Your task to perform on an android device: turn off priority inbox in the gmail app Image 0: 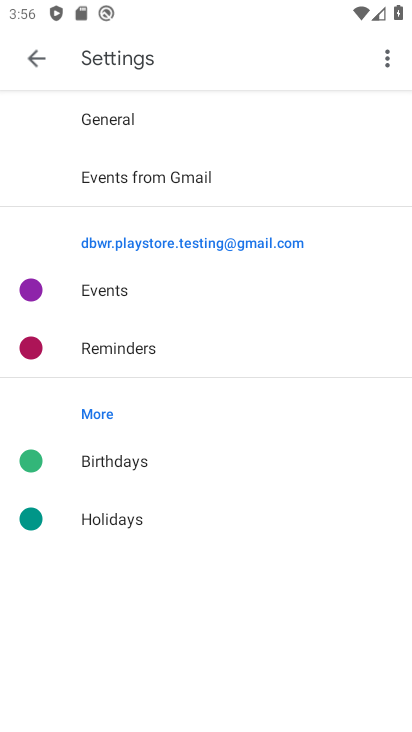
Step 0: press back button
Your task to perform on an android device: turn off priority inbox in the gmail app Image 1: 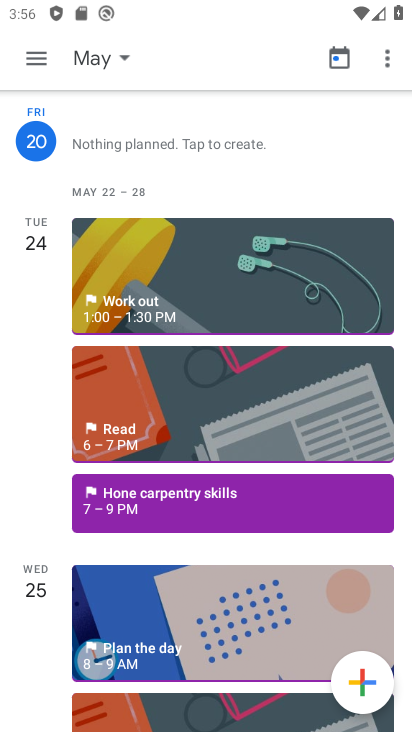
Step 1: press back button
Your task to perform on an android device: turn off priority inbox in the gmail app Image 2: 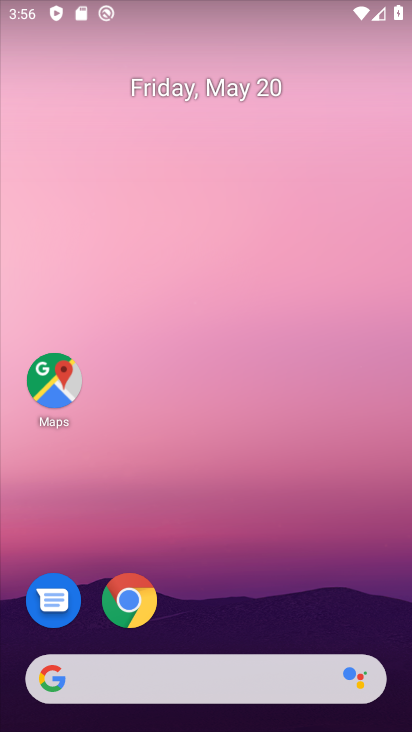
Step 2: drag from (284, 572) to (283, 65)
Your task to perform on an android device: turn off priority inbox in the gmail app Image 3: 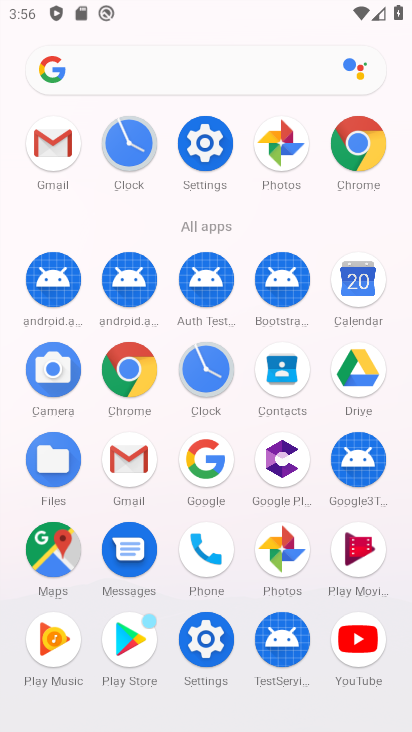
Step 3: click (62, 143)
Your task to perform on an android device: turn off priority inbox in the gmail app Image 4: 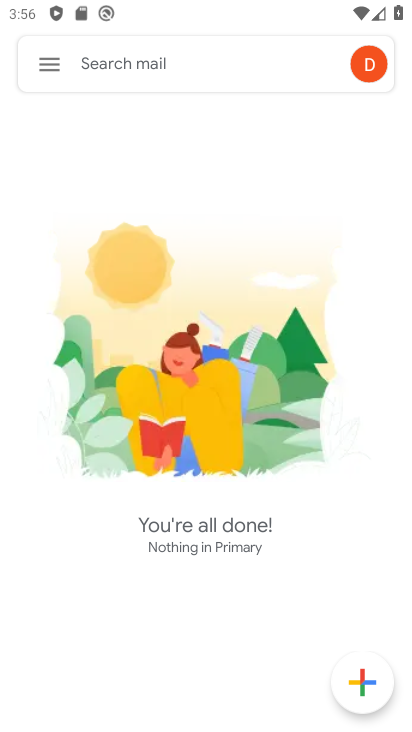
Step 4: click (40, 62)
Your task to perform on an android device: turn off priority inbox in the gmail app Image 5: 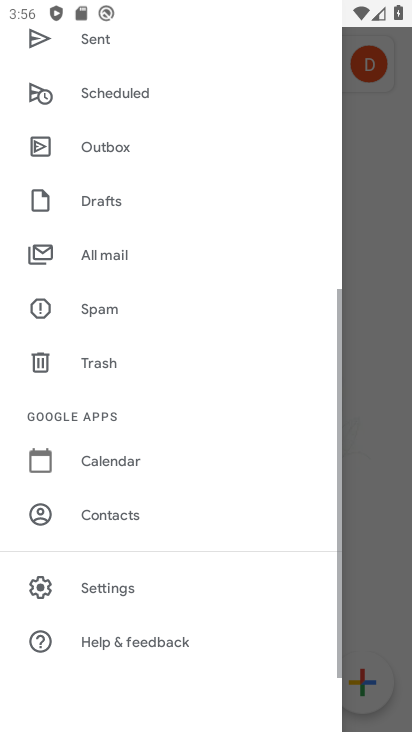
Step 5: click (120, 580)
Your task to perform on an android device: turn off priority inbox in the gmail app Image 6: 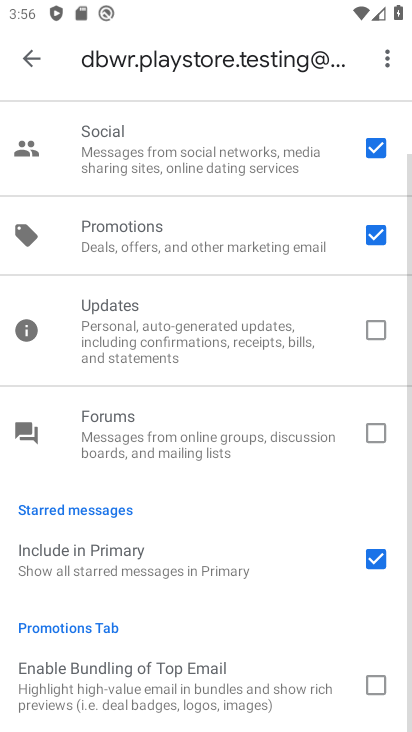
Step 6: drag from (202, 196) to (104, 715)
Your task to perform on an android device: turn off priority inbox in the gmail app Image 7: 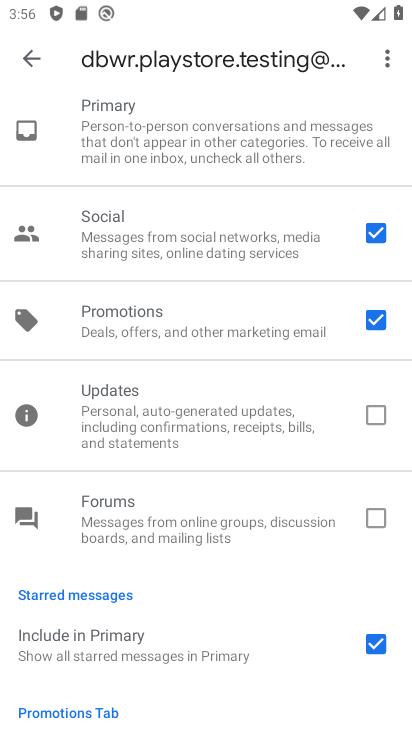
Step 7: drag from (151, 646) to (184, 730)
Your task to perform on an android device: turn off priority inbox in the gmail app Image 8: 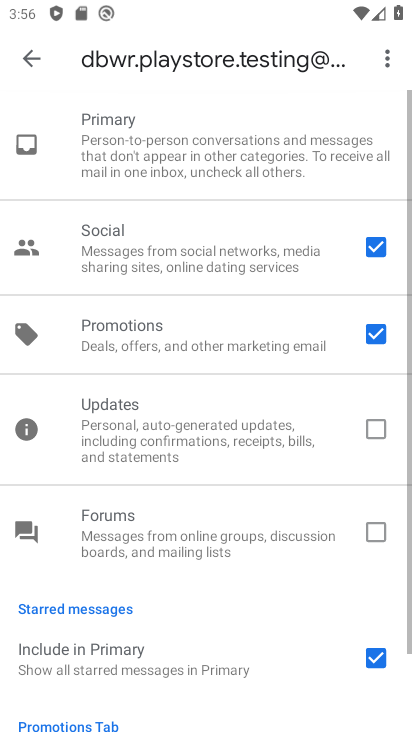
Step 8: click (20, 46)
Your task to perform on an android device: turn off priority inbox in the gmail app Image 9: 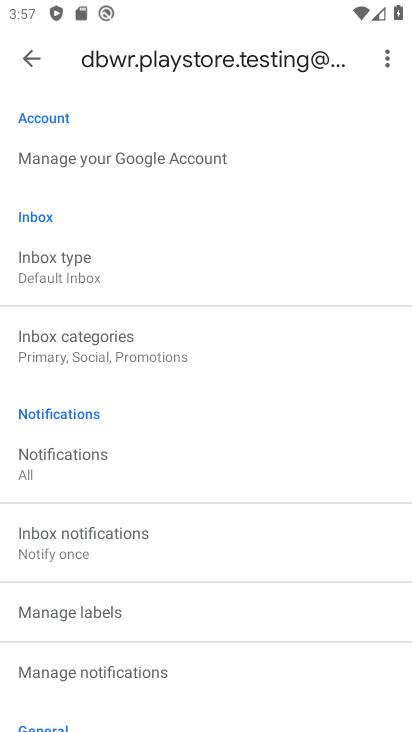
Step 9: click (58, 264)
Your task to perform on an android device: turn off priority inbox in the gmail app Image 10: 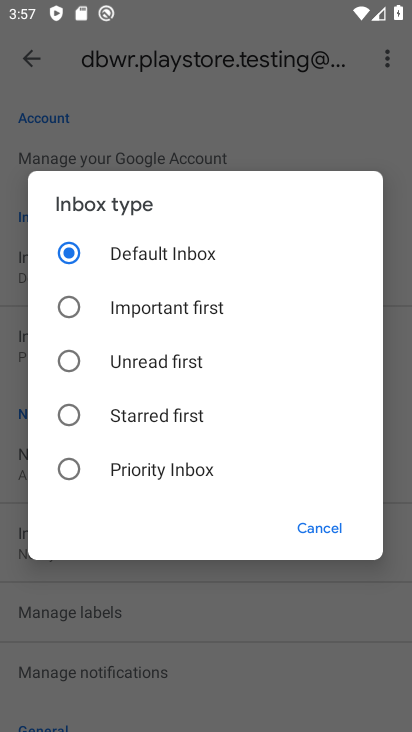
Step 10: task complete